Your task to perform on an android device: What is the recent news? Image 0: 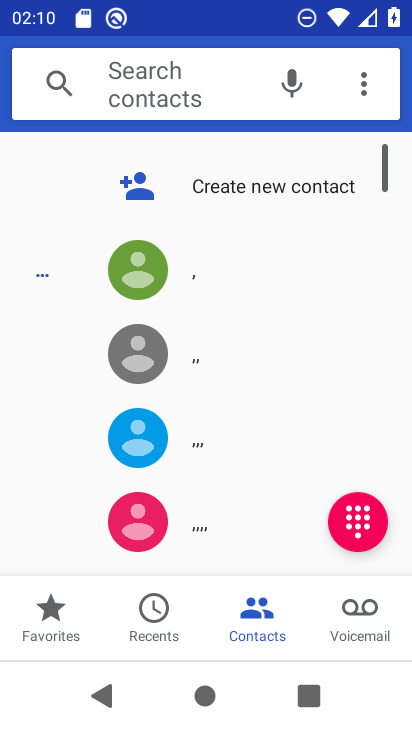
Step 0: press home button
Your task to perform on an android device: What is the recent news? Image 1: 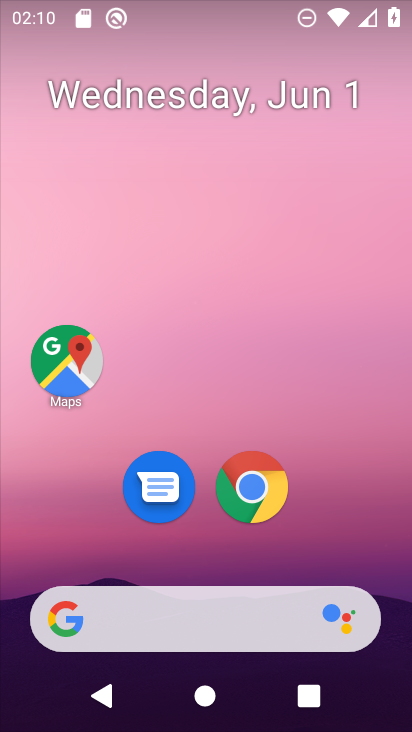
Step 1: drag from (314, 547) to (311, 196)
Your task to perform on an android device: What is the recent news? Image 2: 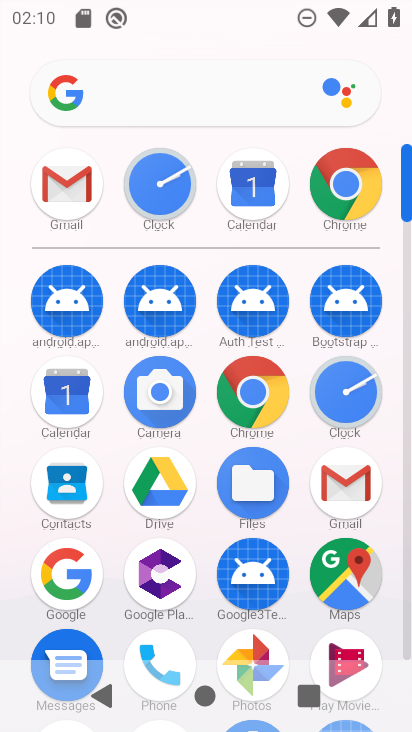
Step 2: click (158, 641)
Your task to perform on an android device: What is the recent news? Image 3: 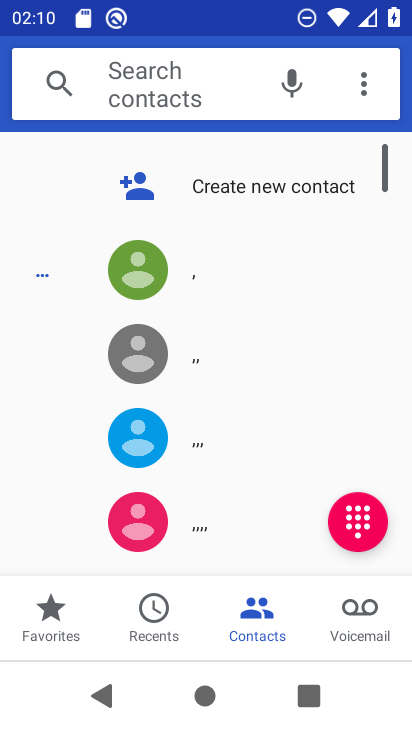
Step 3: press home button
Your task to perform on an android device: What is the recent news? Image 4: 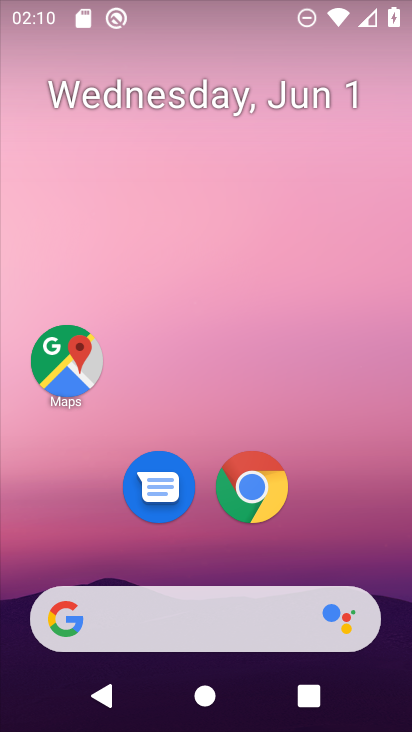
Step 4: drag from (207, 550) to (189, 250)
Your task to perform on an android device: What is the recent news? Image 5: 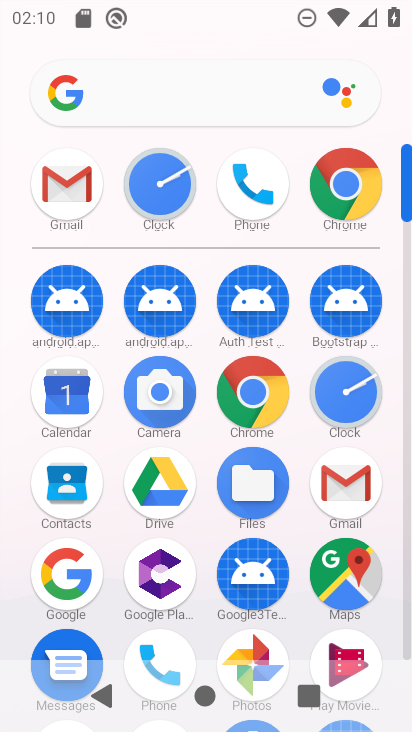
Step 5: click (243, 375)
Your task to perform on an android device: What is the recent news? Image 6: 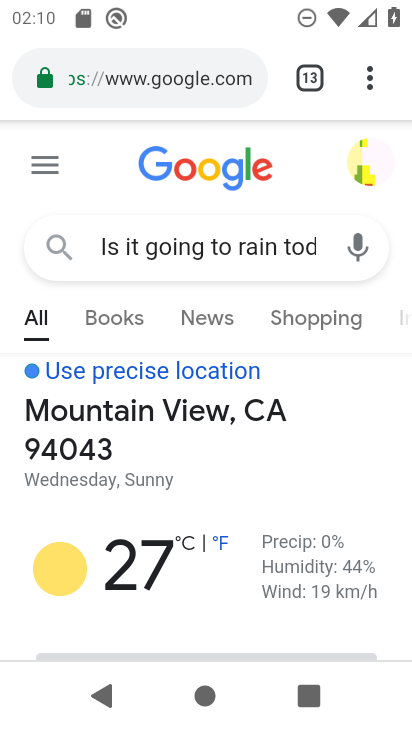
Step 6: click (383, 68)
Your task to perform on an android device: What is the recent news? Image 7: 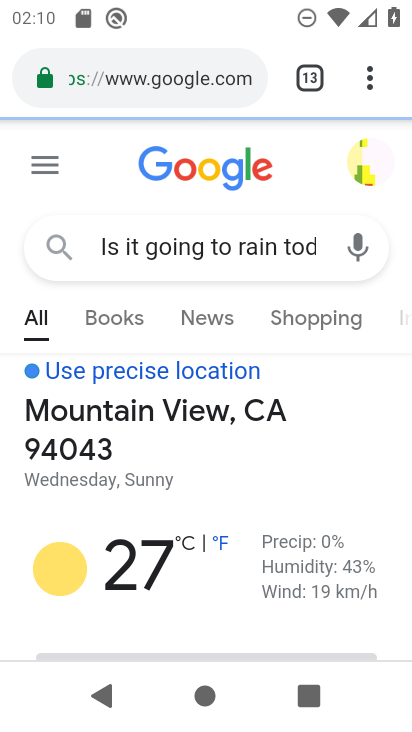
Step 7: click (371, 70)
Your task to perform on an android device: What is the recent news? Image 8: 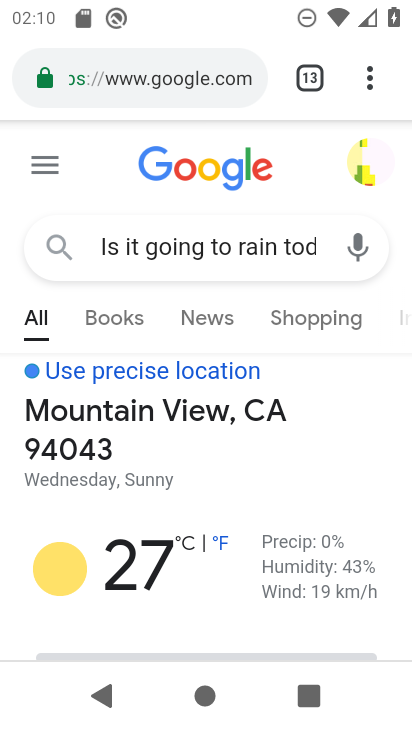
Step 8: click (359, 71)
Your task to perform on an android device: What is the recent news? Image 9: 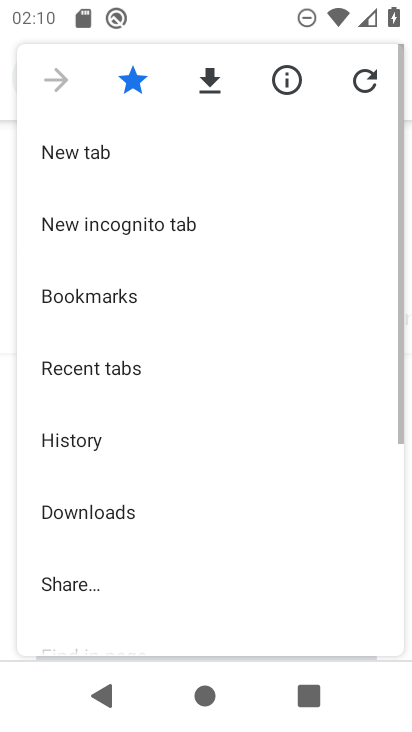
Step 9: click (87, 143)
Your task to perform on an android device: What is the recent news? Image 10: 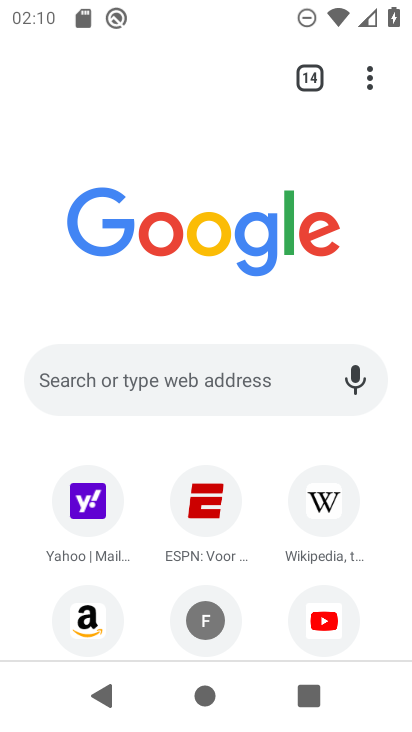
Step 10: click (208, 377)
Your task to perform on an android device: What is the recent news? Image 11: 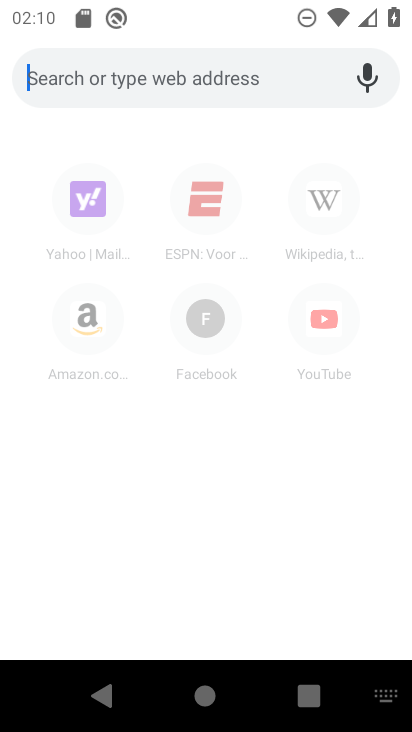
Step 11: type "What is the recent news?"
Your task to perform on an android device: What is the recent news? Image 12: 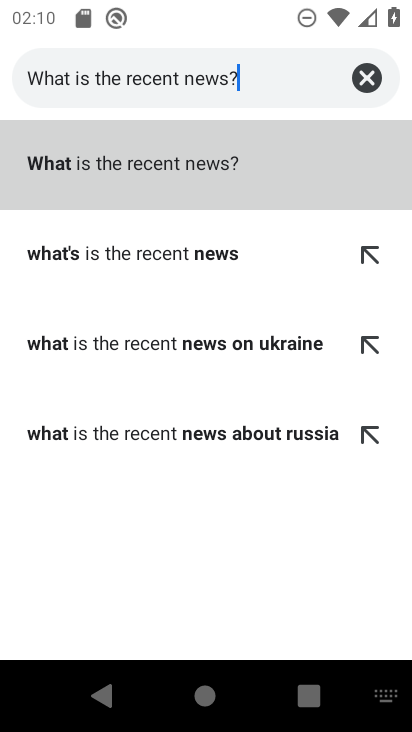
Step 12: click (269, 161)
Your task to perform on an android device: What is the recent news? Image 13: 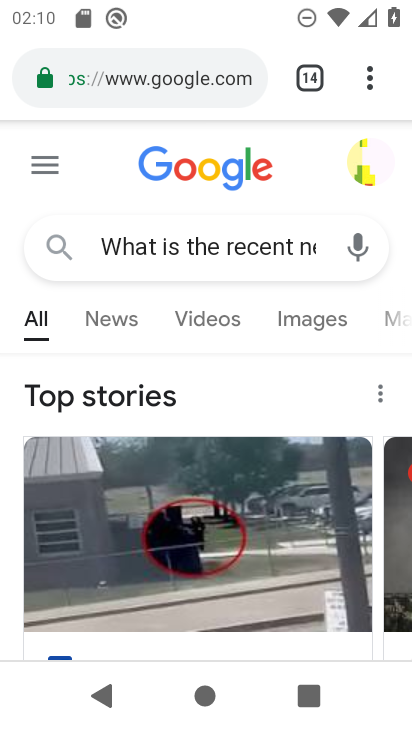
Step 13: task complete